Your task to perform on an android device: Do I have any events tomorrow? Image 0: 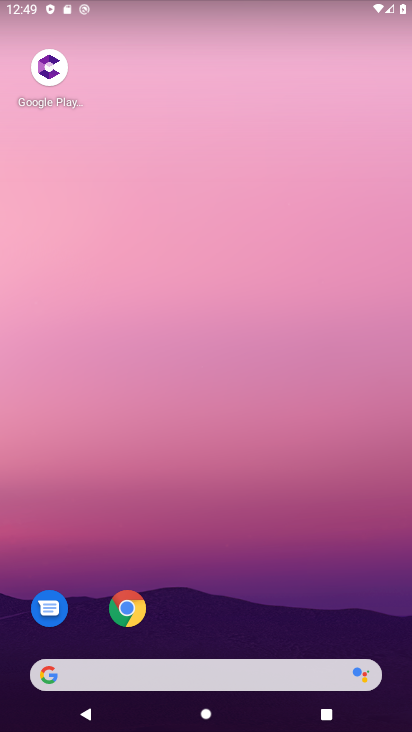
Step 0: drag from (282, 461) to (278, 19)
Your task to perform on an android device: Do I have any events tomorrow? Image 1: 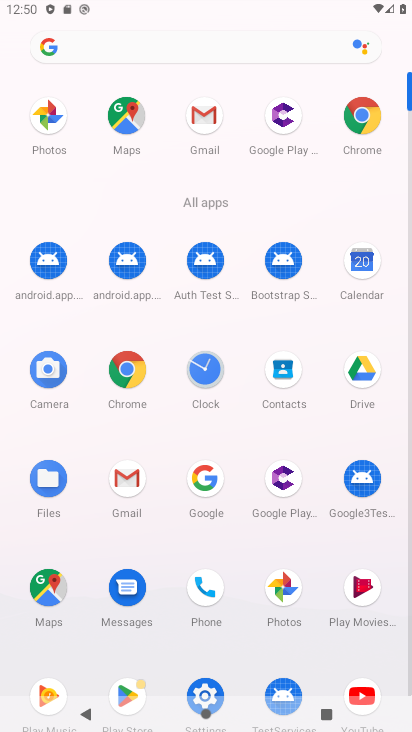
Step 1: click (359, 272)
Your task to perform on an android device: Do I have any events tomorrow? Image 2: 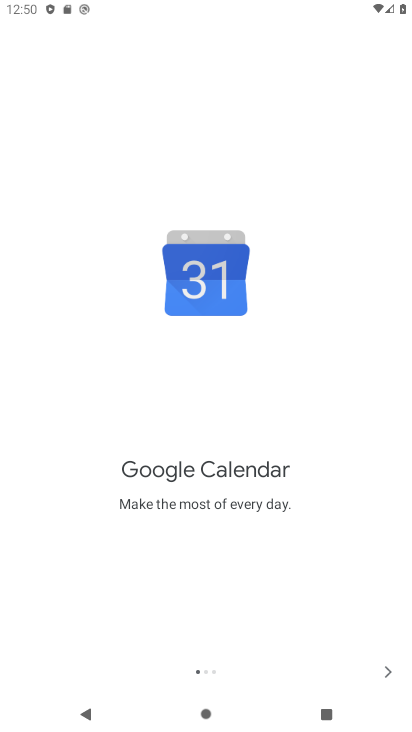
Step 2: click (382, 675)
Your task to perform on an android device: Do I have any events tomorrow? Image 3: 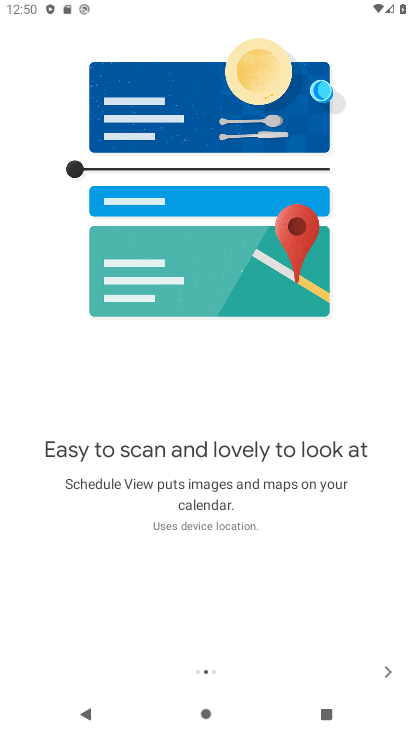
Step 3: click (385, 674)
Your task to perform on an android device: Do I have any events tomorrow? Image 4: 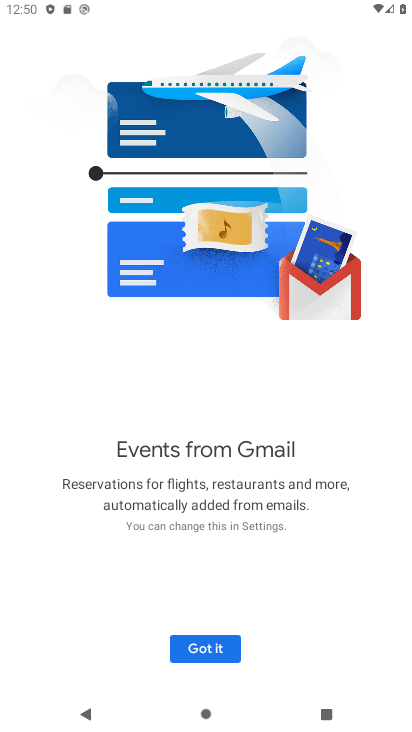
Step 4: click (196, 641)
Your task to perform on an android device: Do I have any events tomorrow? Image 5: 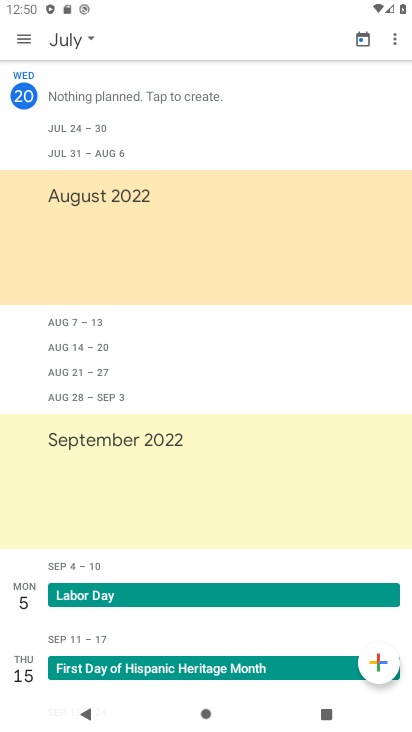
Step 5: click (81, 45)
Your task to perform on an android device: Do I have any events tomorrow? Image 6: 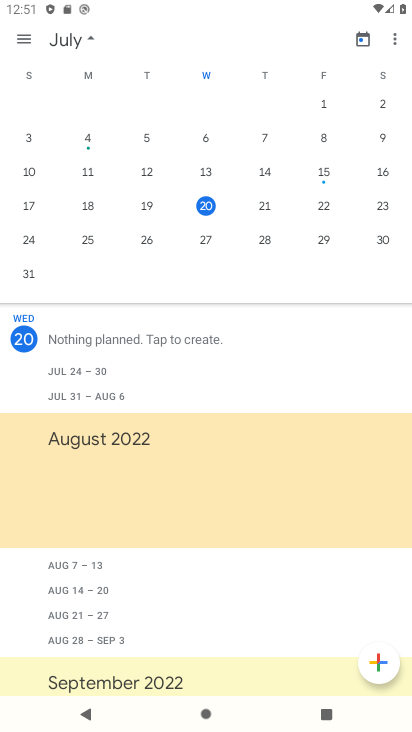
Step 6: click (256, 214)
Your task to perform on an android device: Do I have any events tomorrow? Image 7: 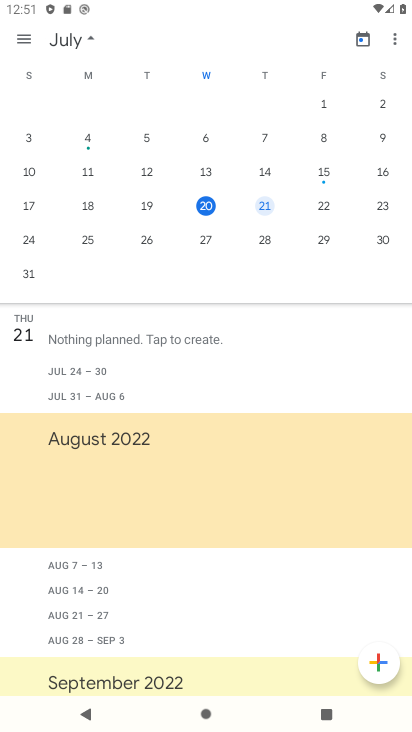
Step 7: click (267, 210)
Your task to perform on an android device: Do I have any events tomorrow? Image 8: 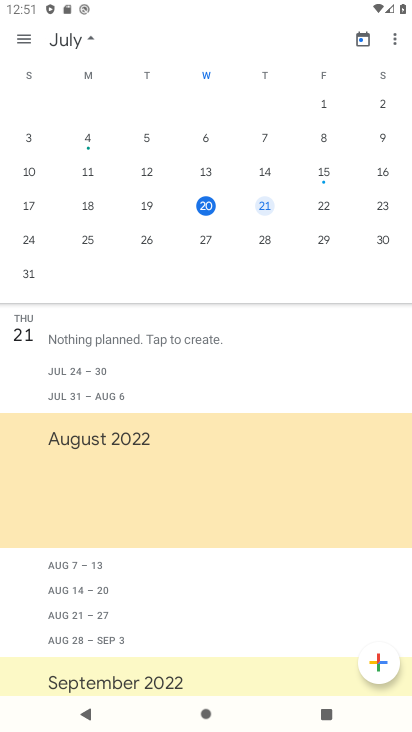
Step 8: task complete